Your task to perform on an android device: Open calendar and show me the third week of next month Image 0: 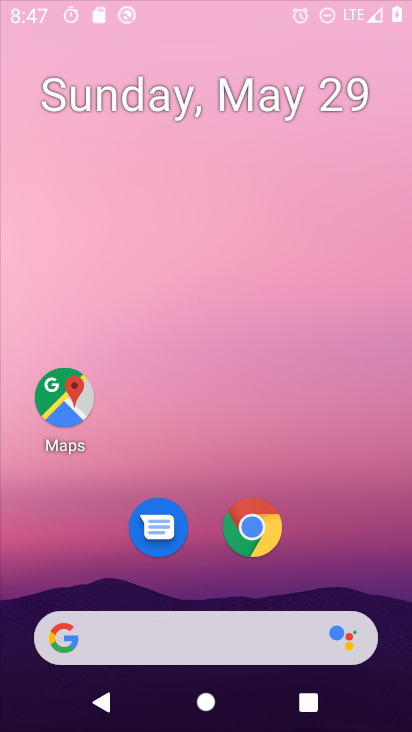
Step 0: click (277, 20)
Your task to perform on an android device: Open calendar and show me the third week of next month Image 1: 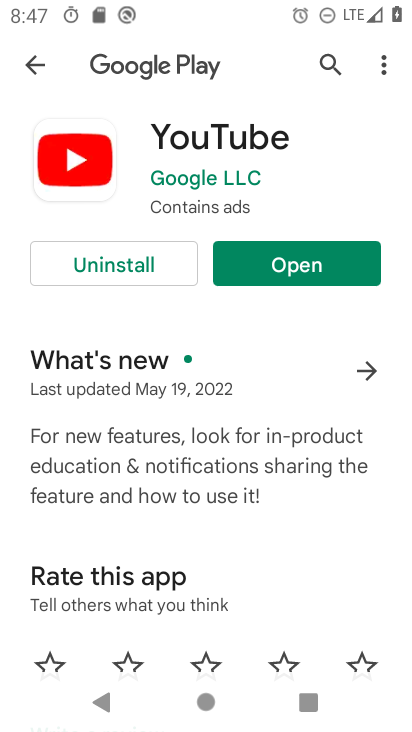
Step 1: press home button
Your task to perform on an android device: Open calendar and show me the third week of next month Image 2: 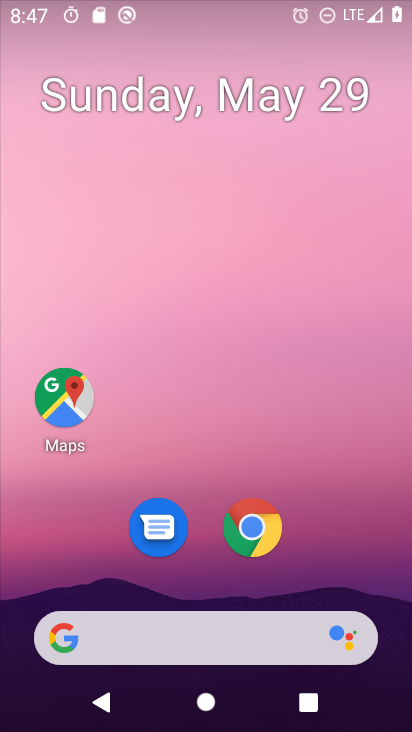
Step 2: drag from (399, 634) to (290, 86)
Your task to perform on an android device: Open calendar and show me the third week of next month Image 3: 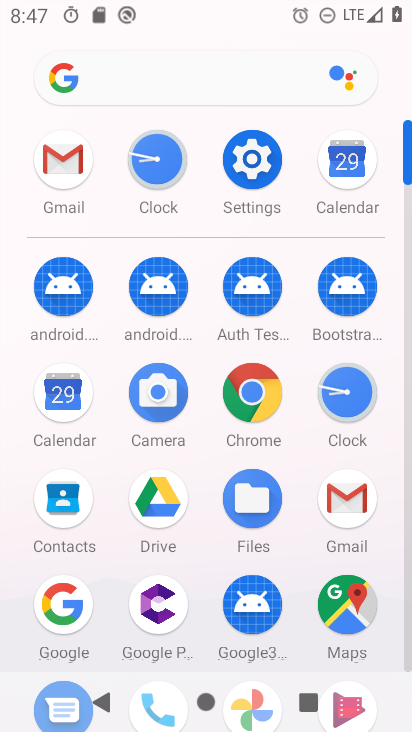
Step 3: click (66, 408)
Your task to perform on an android device: Open calendar and show me the third week of next month Image 4: 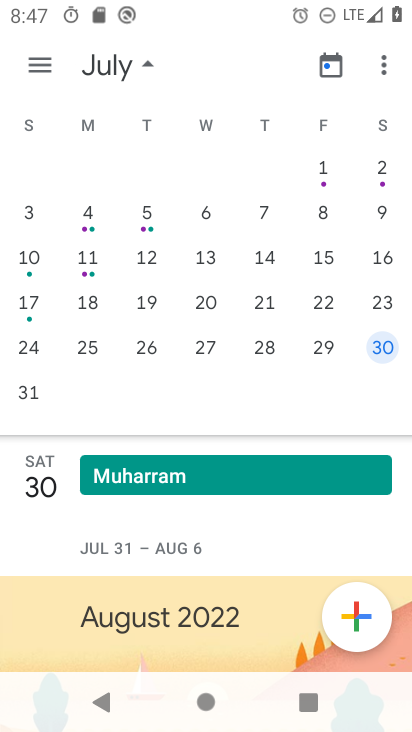
Step 4: click (31, 263)
Your task to perform on an android device: Open calendar and show me the third week of next month Image 5: 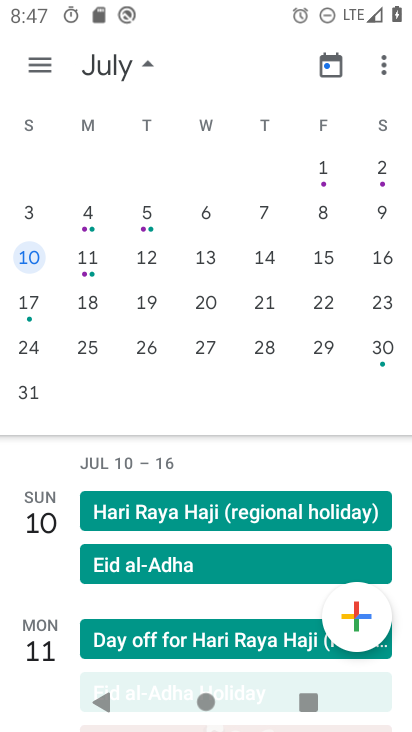
Step 5: drag from (353, 259) to (44, 217)
Your task to perform on an android device: Open calendar and show me the third week of next month Image 6: 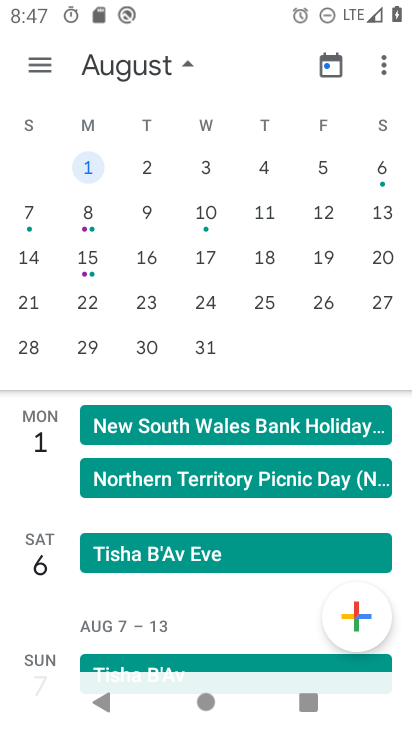
Step 6: click (198, 298)
Your task to perform on an android device: Open calendar and show me the third week of next month Image 7: 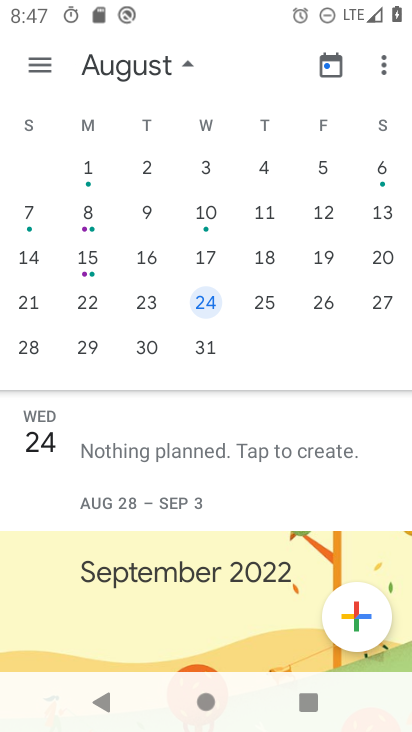
Step 7: task complete